Your task to perform on an android device: Open notification settings Image 0: 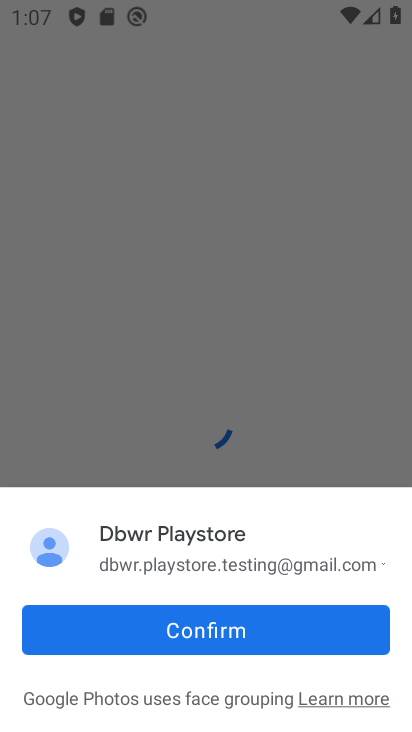
Step 0: press home button
Your task to perform on an android device: Open notification settings Image 1: 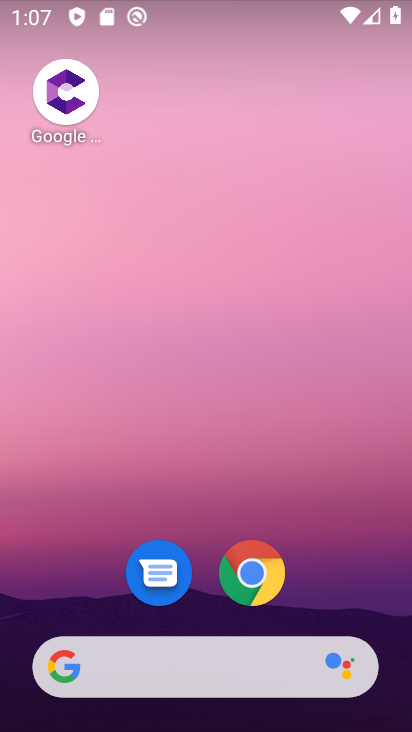
Step 1: drag from (318, 423) to (304, 103)
Your task to perform on an android device: Open notification settings Image 2: 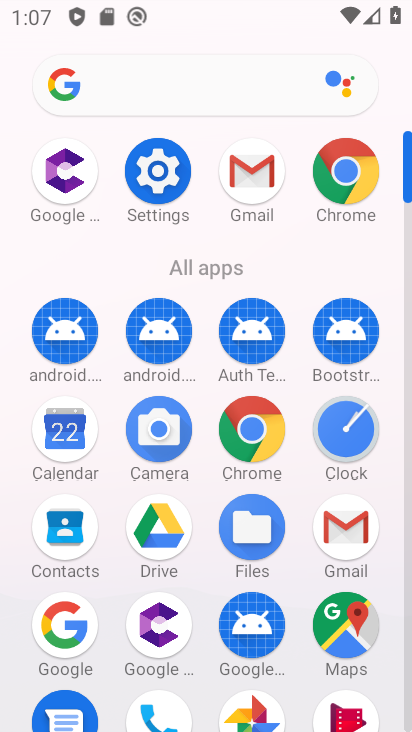
Step 2: click (148, 190)
Your task to perform on an android device: Open notification settings Image 3: 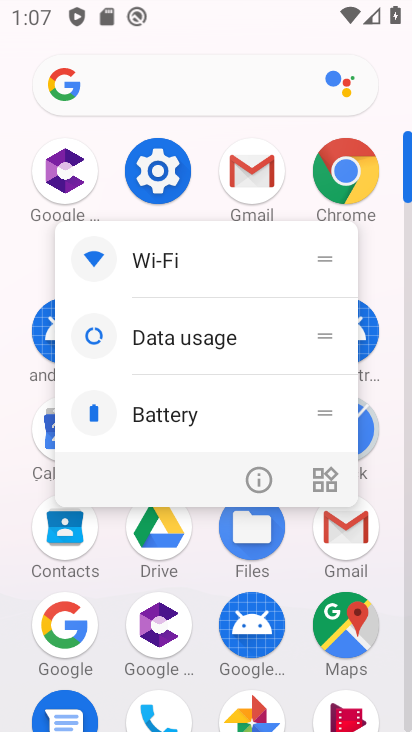
Step 3: click (151, 189)
Your task to perform on an android device: Open notification settings Image 4: 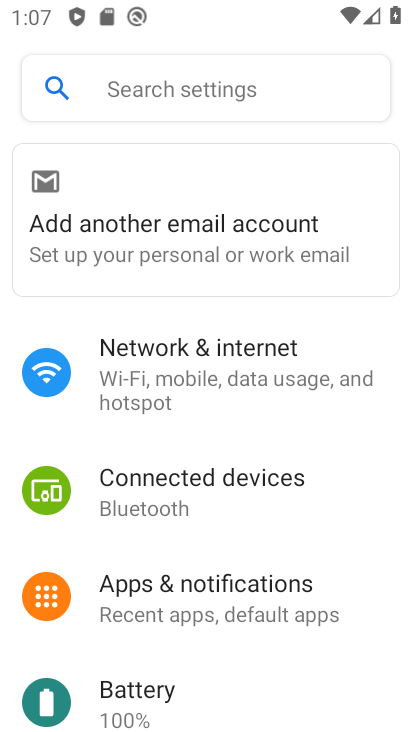
Step 4: click (238, 586)
Your task to perform on an android device: Open notification settings Image 5: 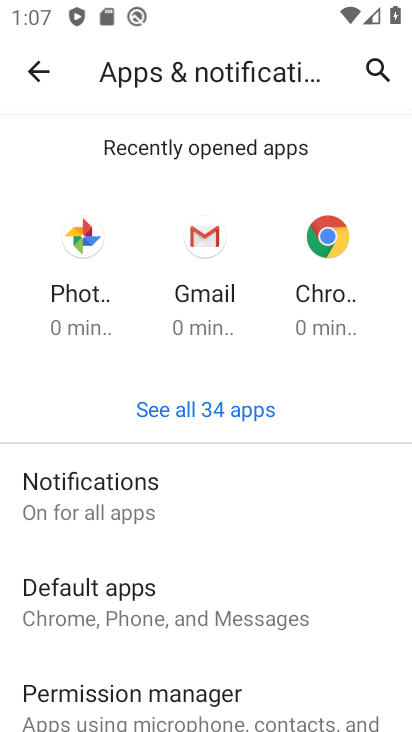
Step 5: click (187, 505)
Your task to perform on an android device: Open notification settings Image 6: 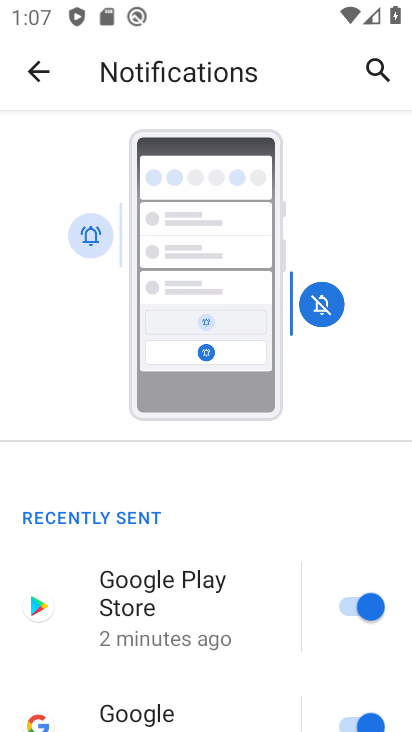
Step 6: task complete